Your task to perform on an android device: turn off translation in the chrome app Image 0: 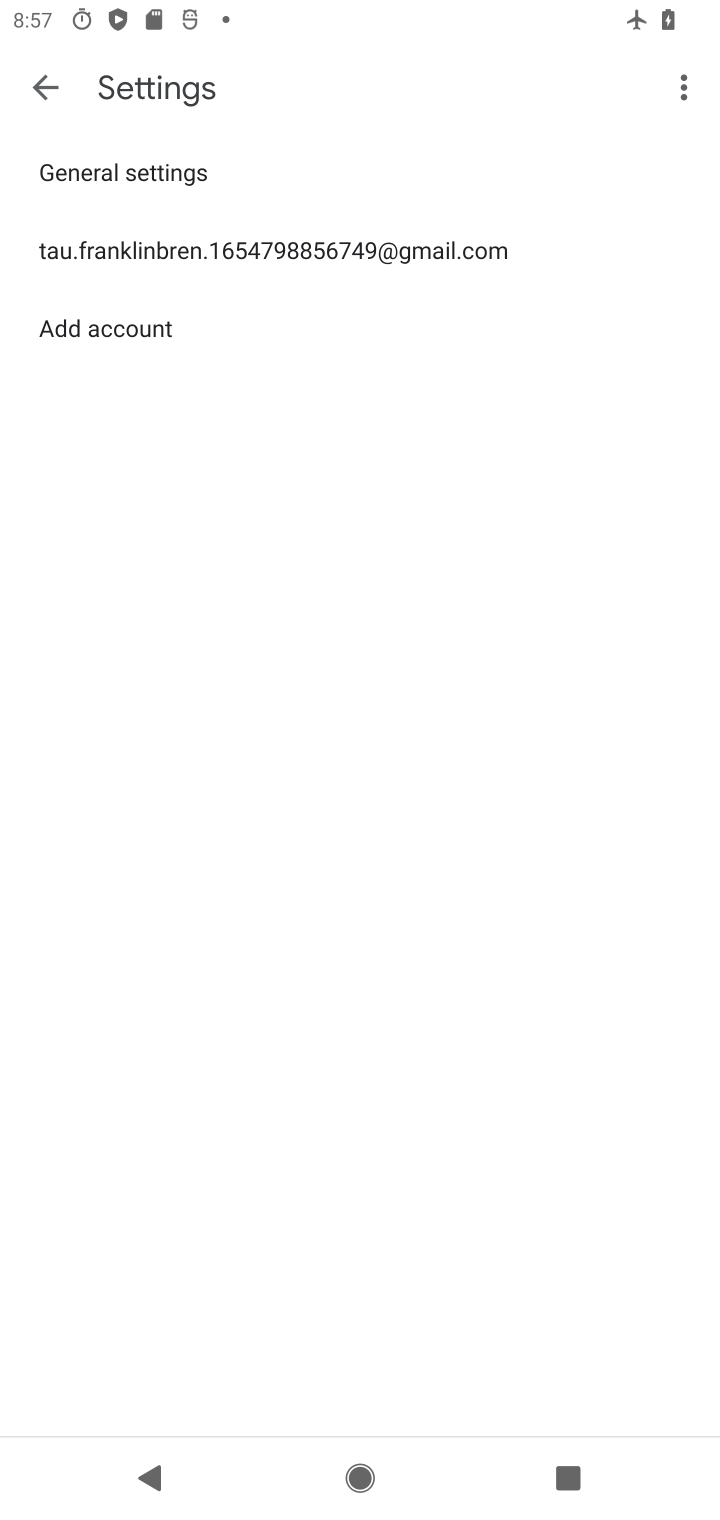
Step 0: press home button
Your task to perform on an android device: turn off translation in the chrome app Image 1: 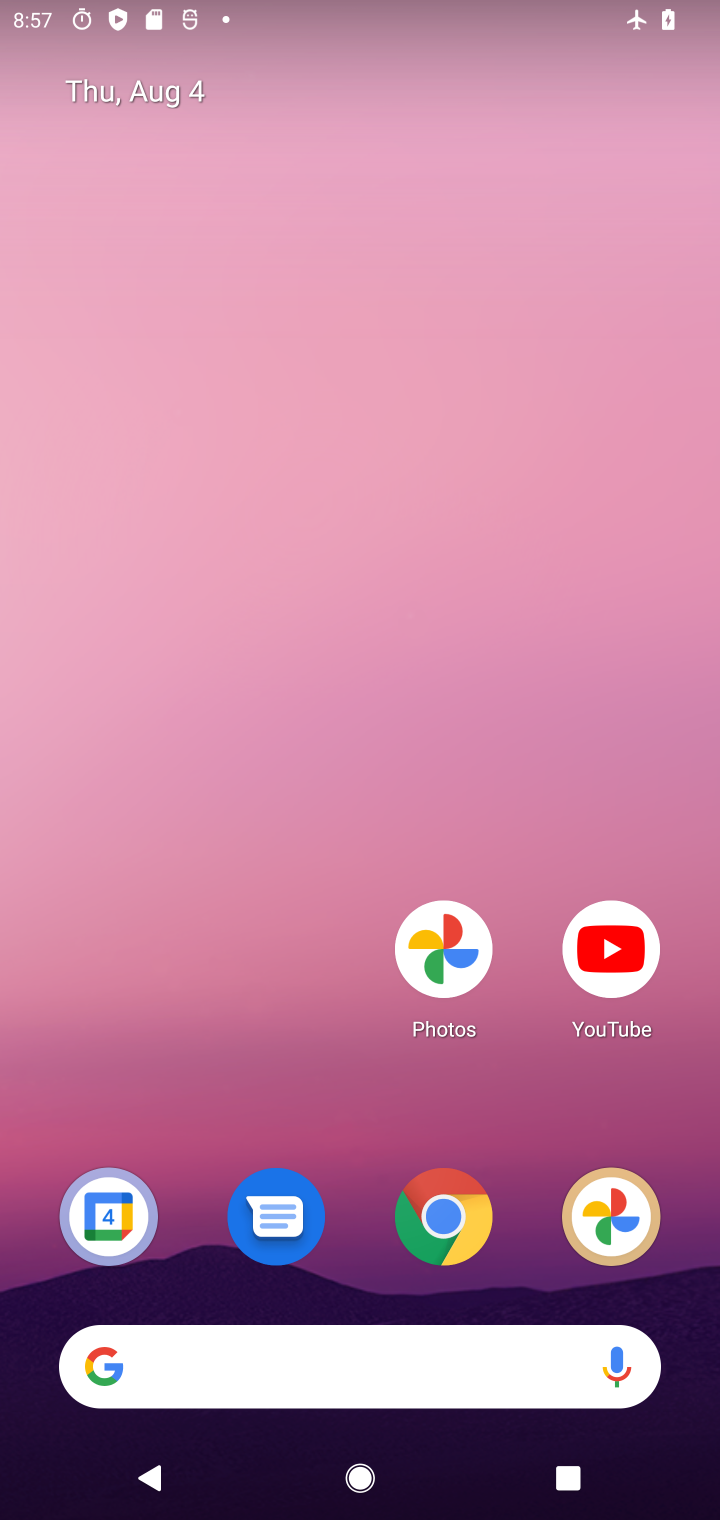
Step 1: click (444, 1211)
Your task to perform on an android device: turn off translation in the chrome app Image 2: 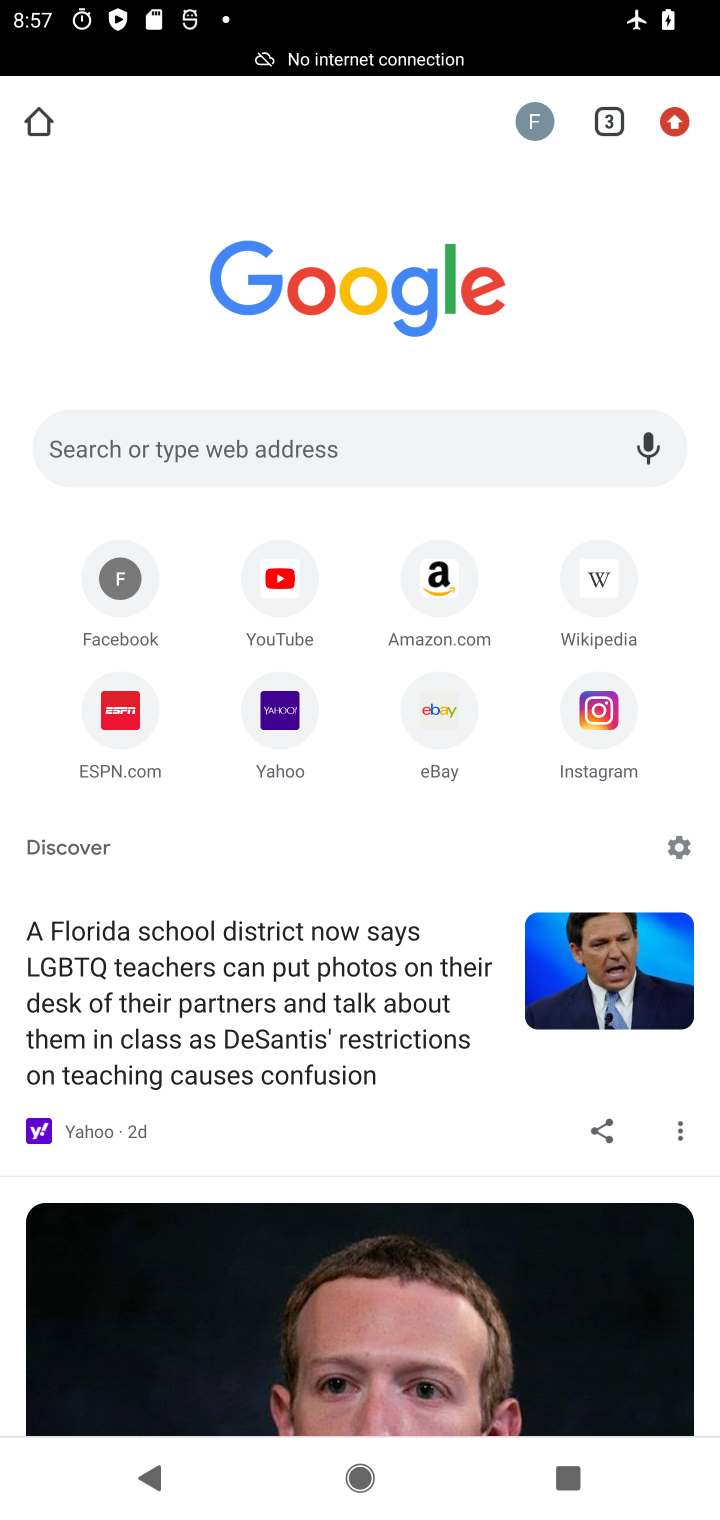
Step 2: click (676, 122)
Your task to perform on an android device: turn off translation in the chrome app Image 3: 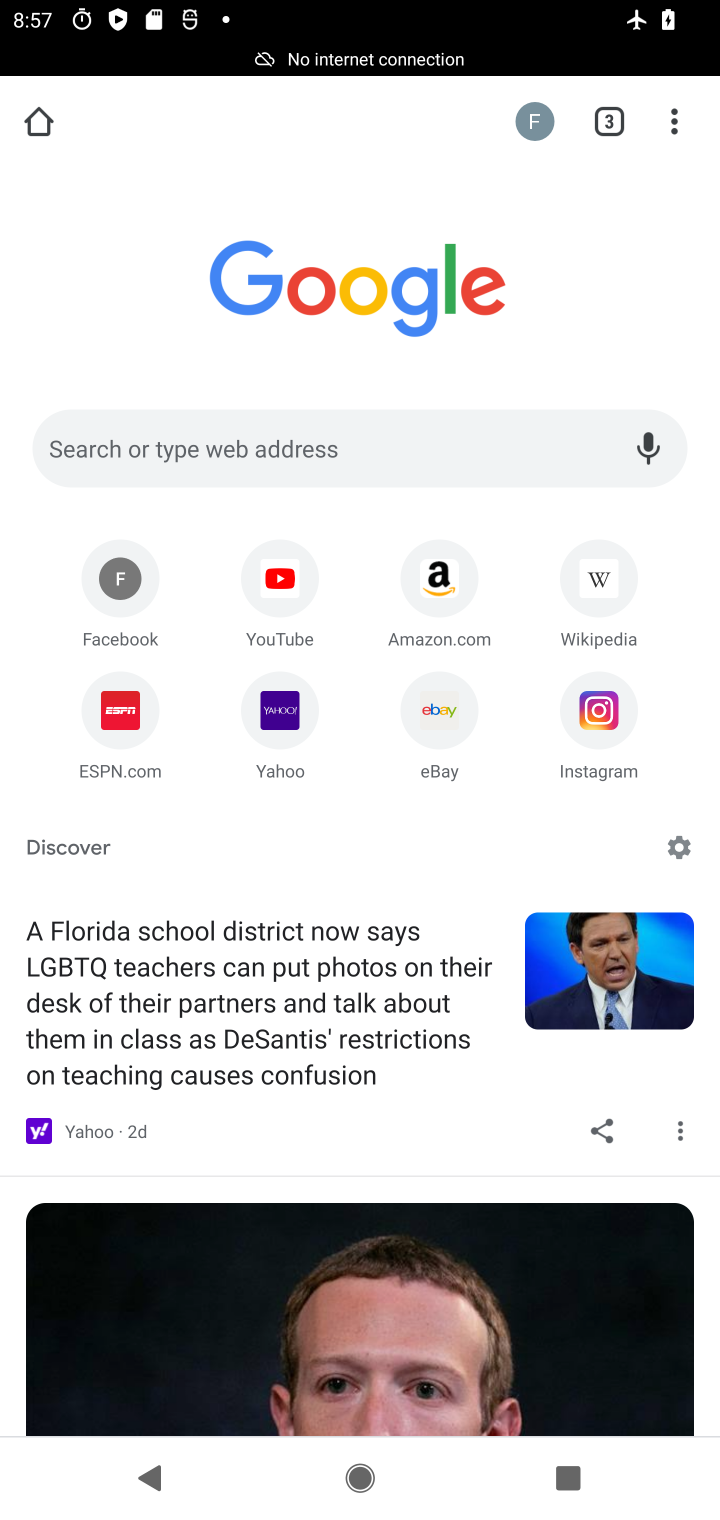
Step 3: click (668, 124)
Your task to perform on an android device: turn off translation in the chrome app Image 4: 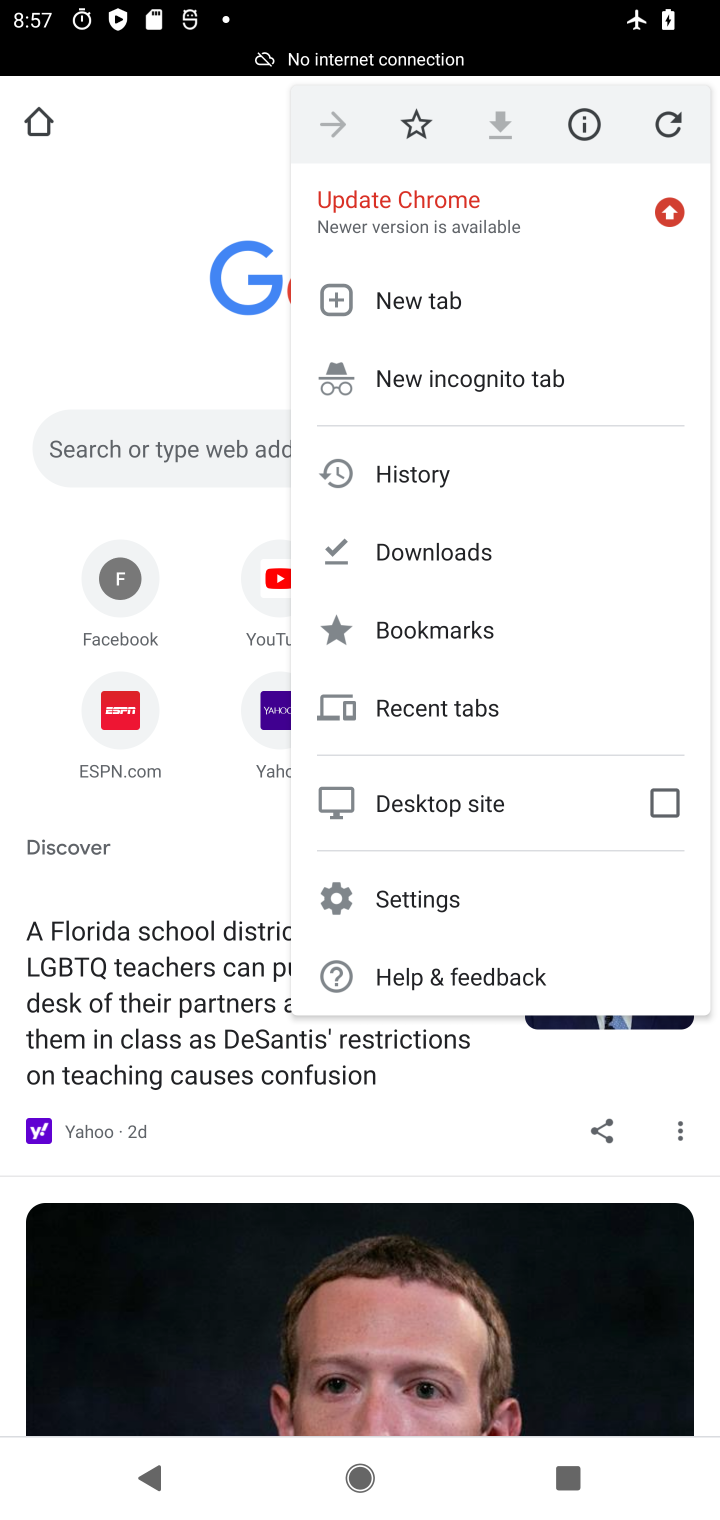
Step 4: click (417, 896)
Your task to perform on an android device: turn off translation in the chrome app Image 5: 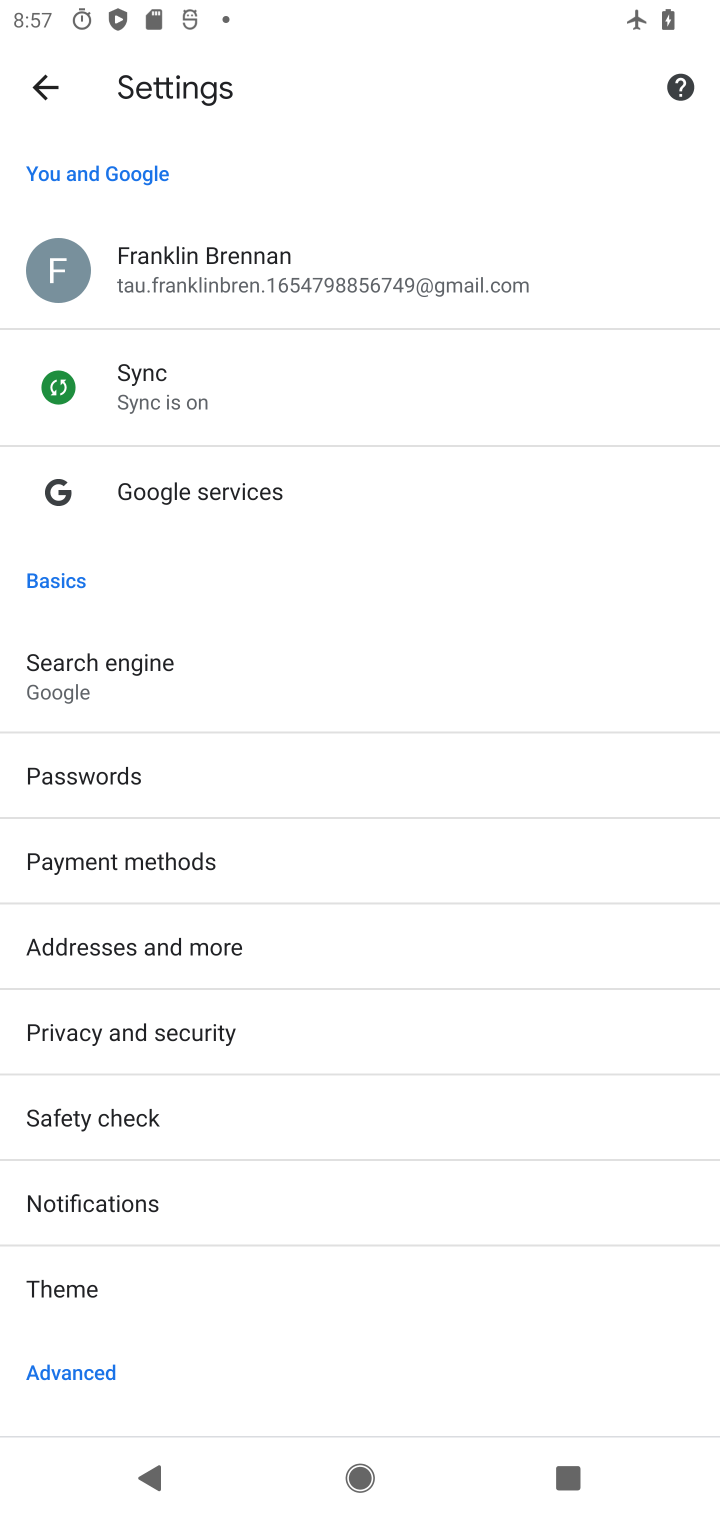
Step 5: drag from (142, 1401) to (121, 745)
Your task to perform on an android device: turn off translation in the chrome app Image 6: 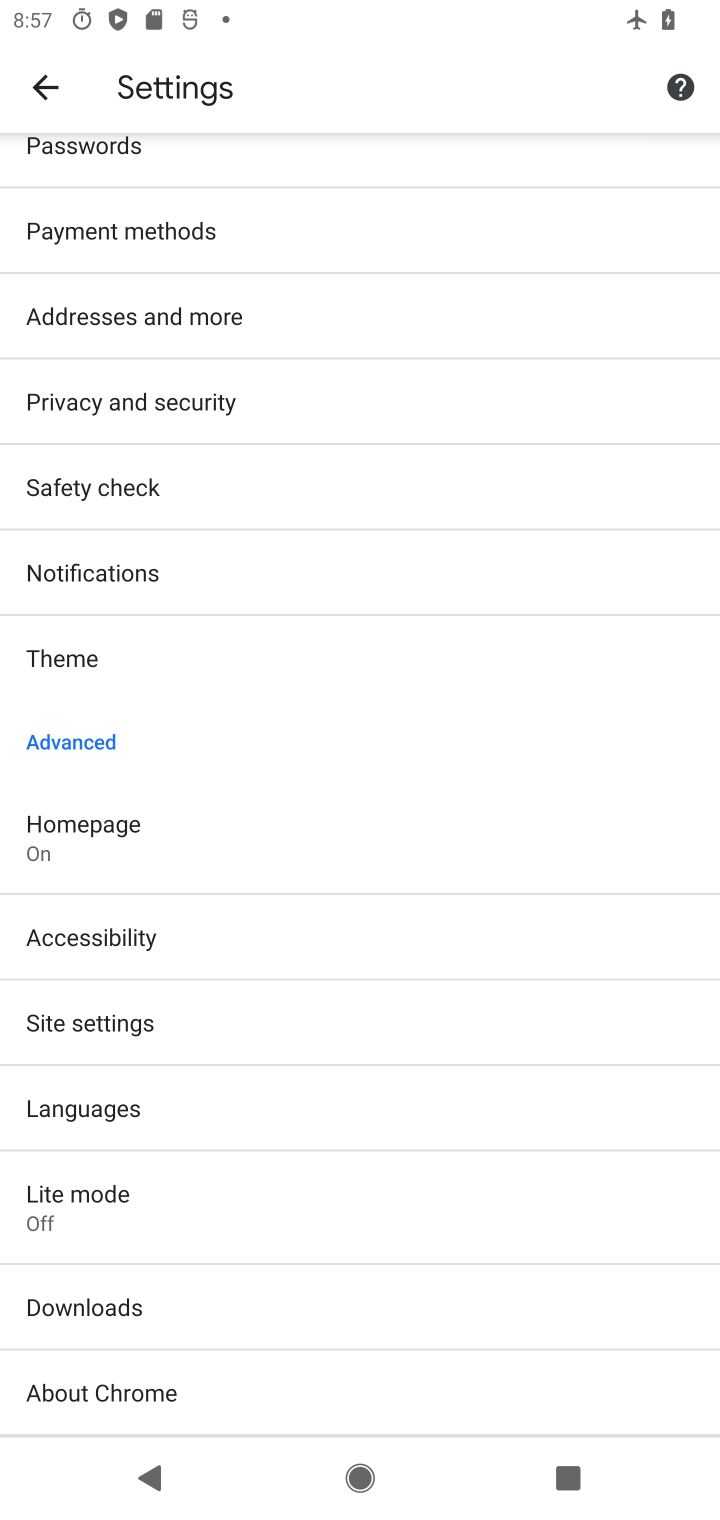
Step 6: click (121, 1104)
Your task to perform on an android device: turn off translation in the chrome app Image 7: 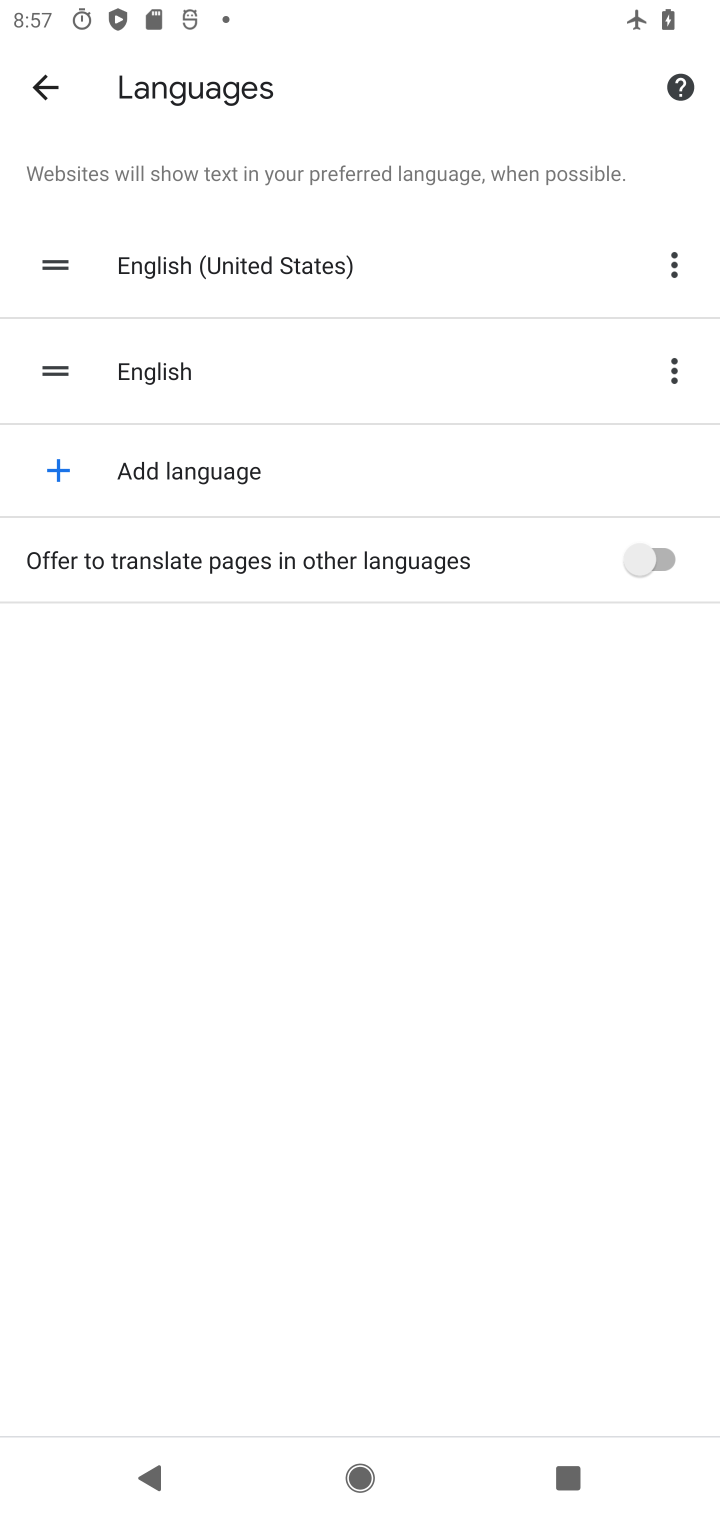
Step 7: task complete